Your task to perform on an android device: Open my contact list Image 0: 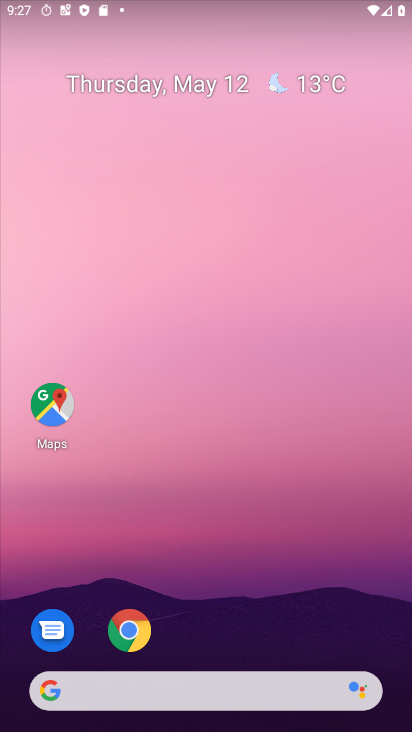
Step 0: drag from (188, 674) to (198, 94)
Your task to perform on an android device: Open my contact list Image 1: 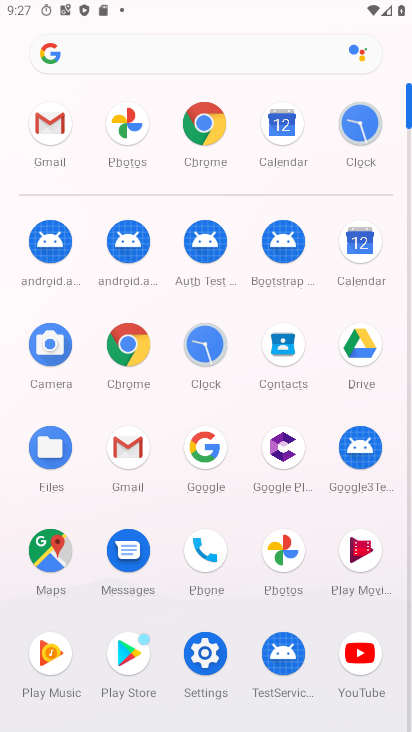
Step 1: click (274, 342)
Your task to perform on an android device: Open my contact list Image 2: 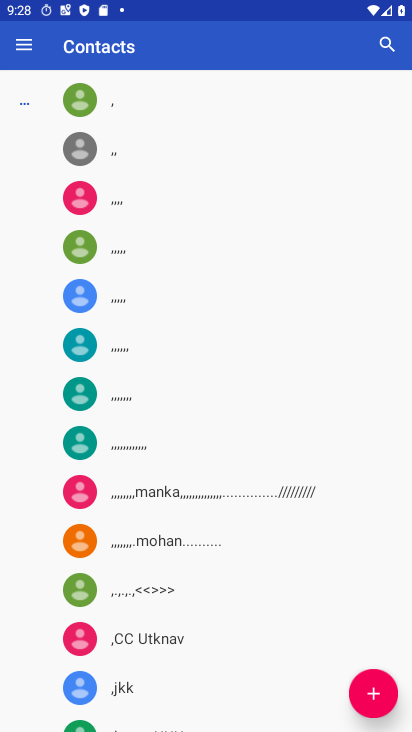
Step 2: task complete